Your task to perform on an android device: Open Yahoo.com Image 0: 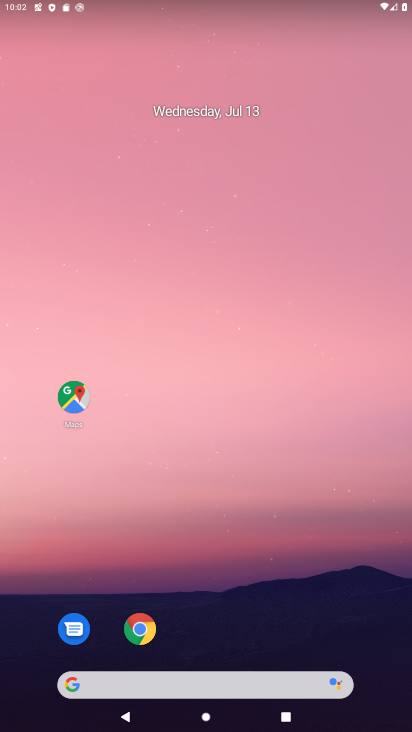
Step 0: press home button
Your task to perform on an android device: Open Yahoo.com Image 1: 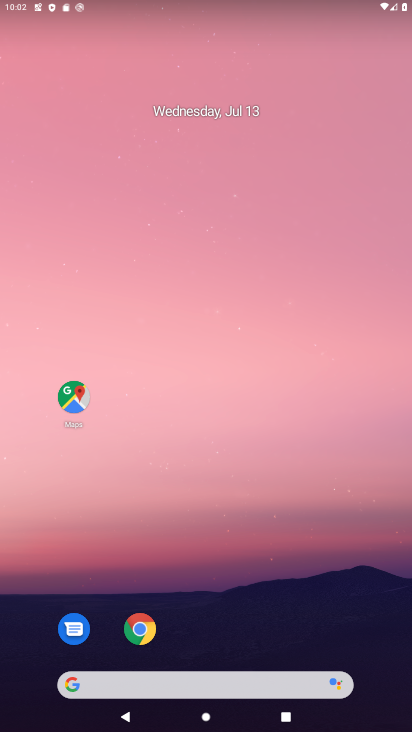
Step 1: press home button
Your task to perform on an android device: Open Yahoo.com Image 2: 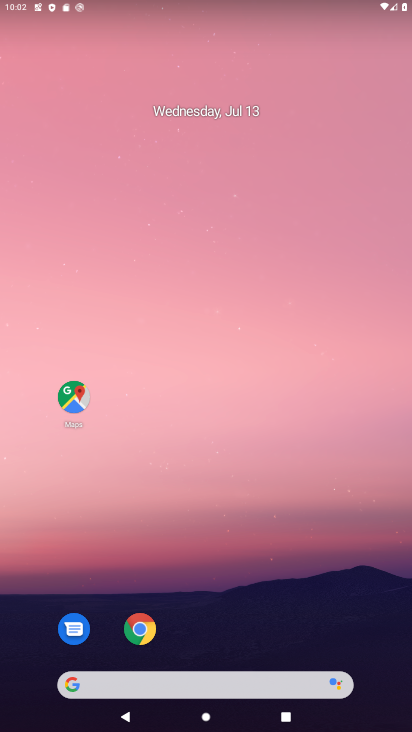
Step 2: click (139, 629)
Your task to perform on an android device: Open Yahoo.com Image 3: 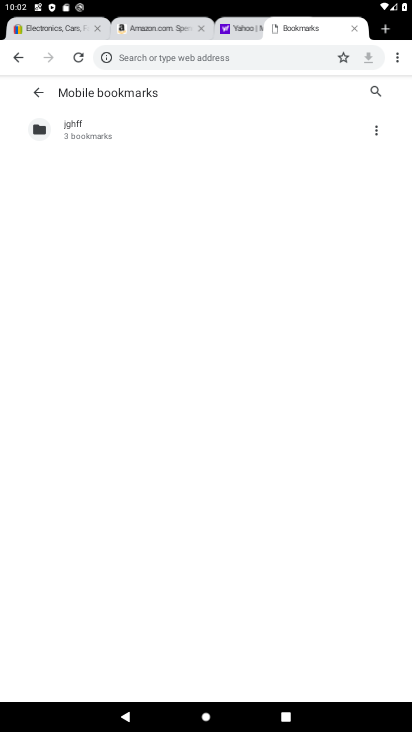
Step 3: click (355, 28)
Your task to perform on an android device: Open Yahoo.com Image 4: 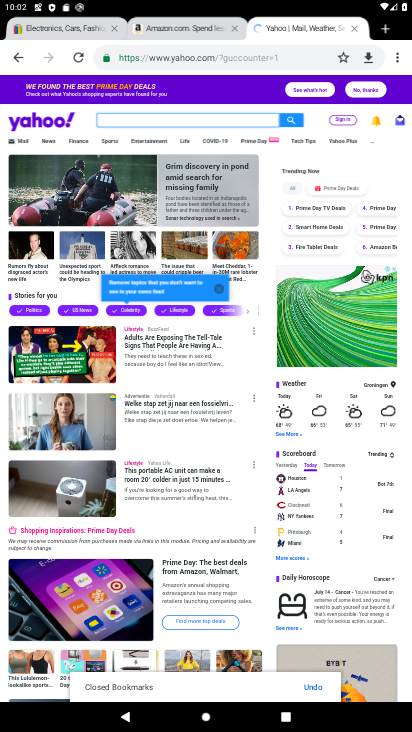
Step 4: click (201, 22)
Your task to perform on an android device: Open Yahoo.com Image 5: 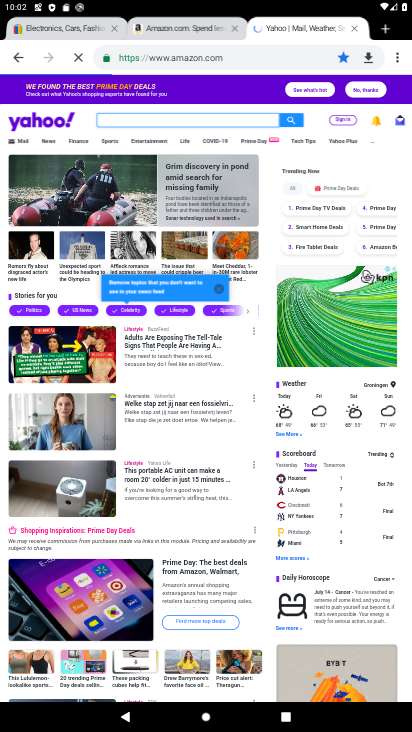
Step 5: click (112, 26)
Your task to perform on an android device: Open Yahoo.com Image 6: 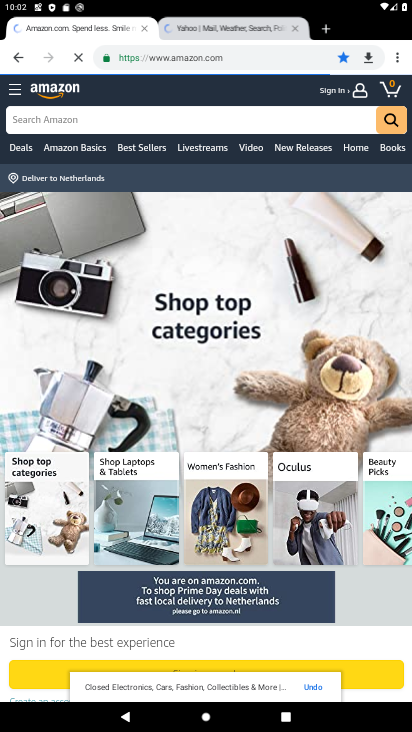
Step 6: click (211, 26)
Your task to perform on an android device: Open Yahoo.com Image 7: 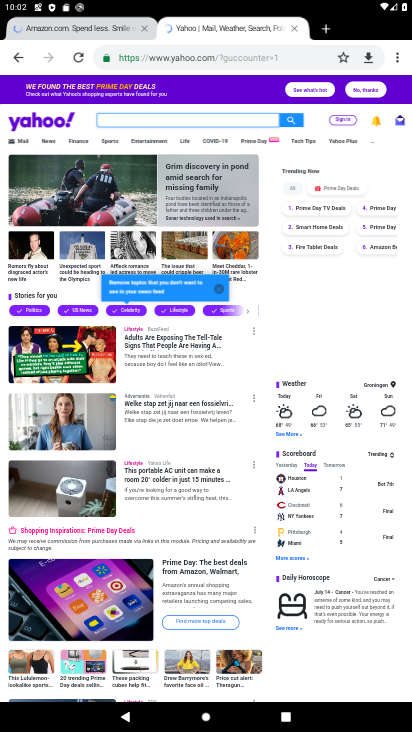
Step 7: task complete